Your task to perform on an android device: Go to notification settings Image 0: 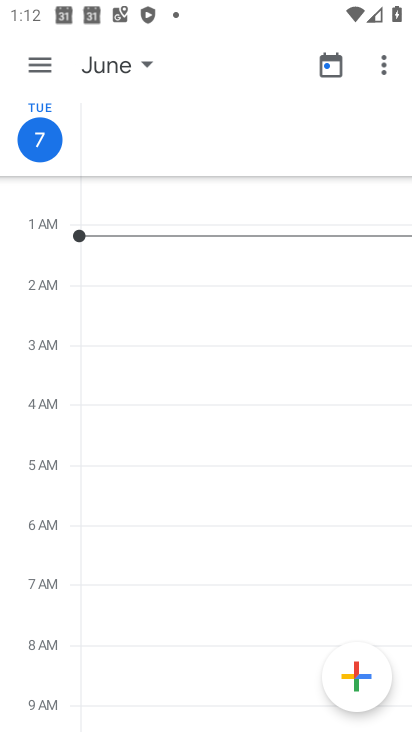
Step 0: press home button
Your task to perform on an android device: Go to notification settings Image 1: 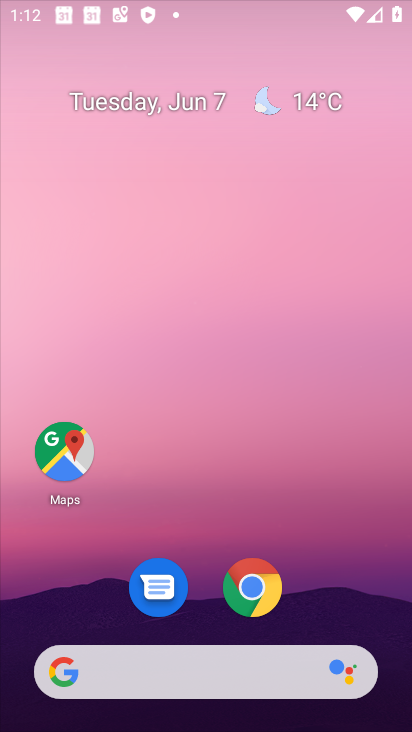
Step 1: drag from (199, 632) to (246, 10)
Your task to perform on an android device: Go to notification settings Image 2: 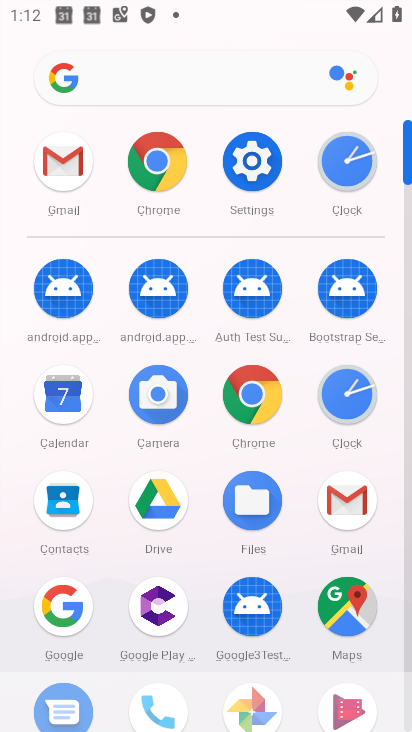
Step 2: click (272, 175)
Your task to perform on an android device: Go to notification settings Image 3: 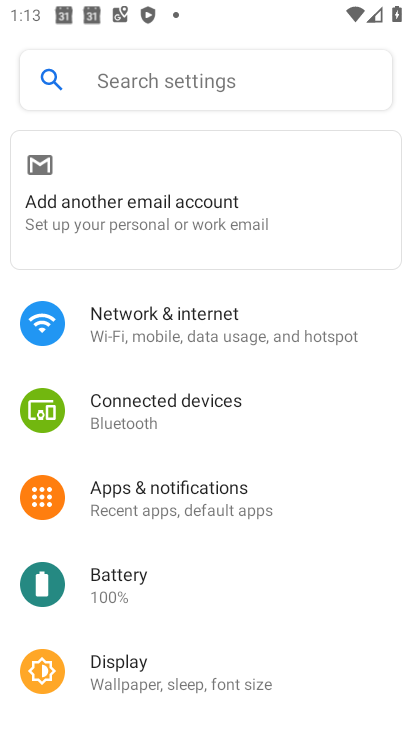
Step 3: click (181, 503)
Your task to perform on an android device: Go to notification settings Image 4: 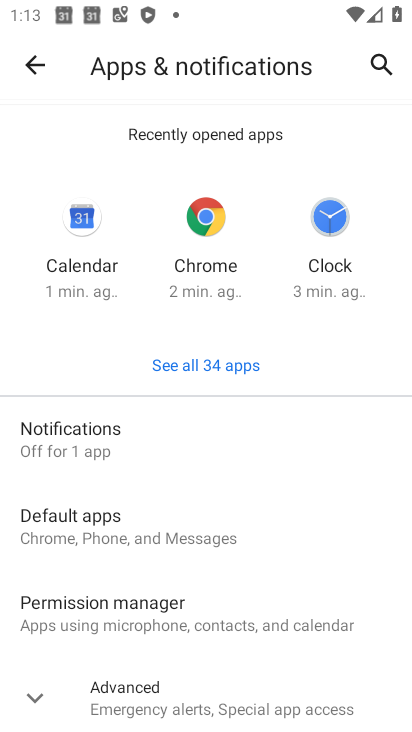
Step 4: click (206, 441)
Your task to perform on an android device: Go to notification settings Image 5: 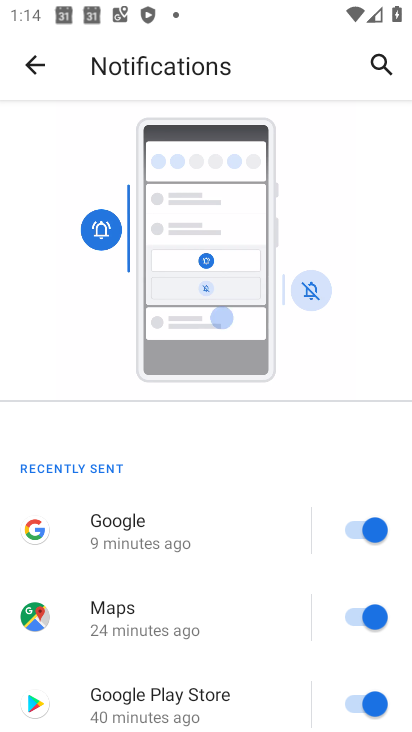
Step 5: task complete